Your task to perform on an android device: Open Google Maps Image 0: 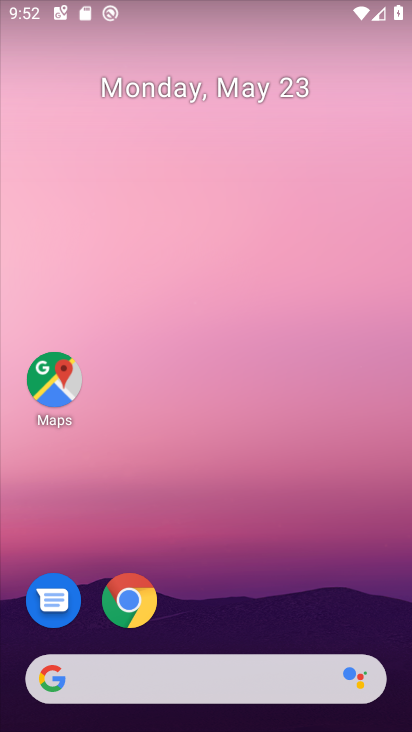
Step 0: drag from (206, 729) to (219, 63)
Your task to perform on an android device: Open Google Maps Image 1: 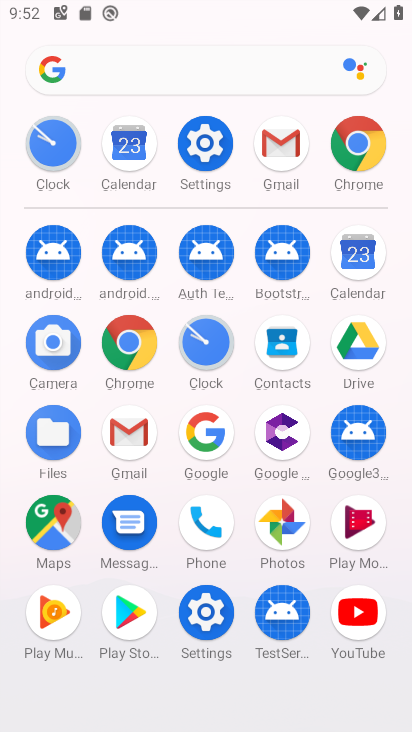
Step 1: click (59, 515)
Your task to perform on an android device: Open Google Maps Image 2: 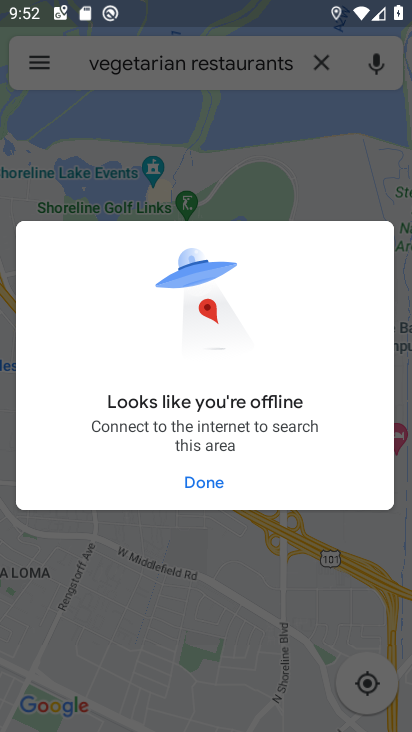
Step 2: click (211, 482)
Your task to perform on an android device: Open Google Maps Image 3: 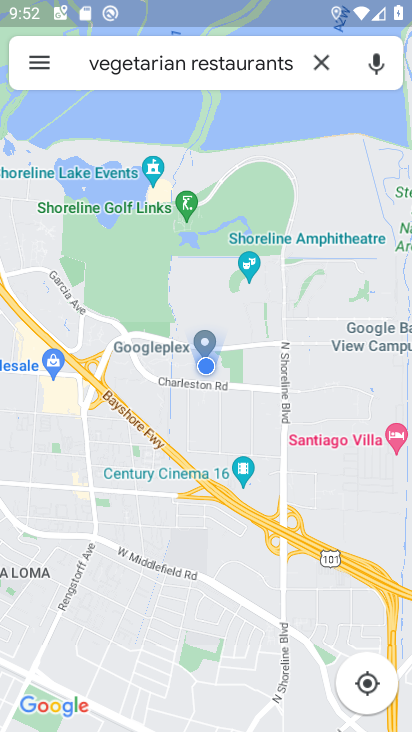
Step 3: task complete